Your task to perform on an android device: Open internet settings Image 0: 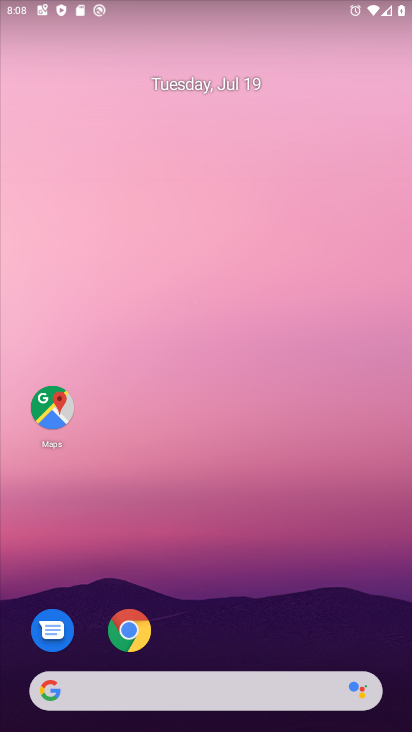
Step 0: drag from (243, 466) to (209, 87)
Your task to perform on an android device: Open internet settings Image 1: 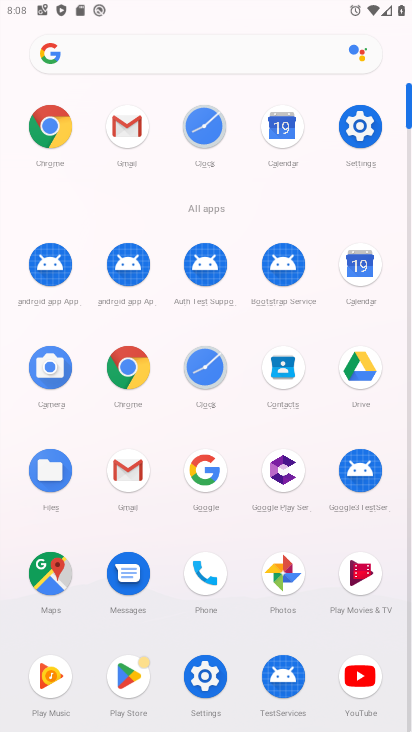
Step 1: click (357, 128)
Your task to perform on an android device: Open internet settings Image 2: 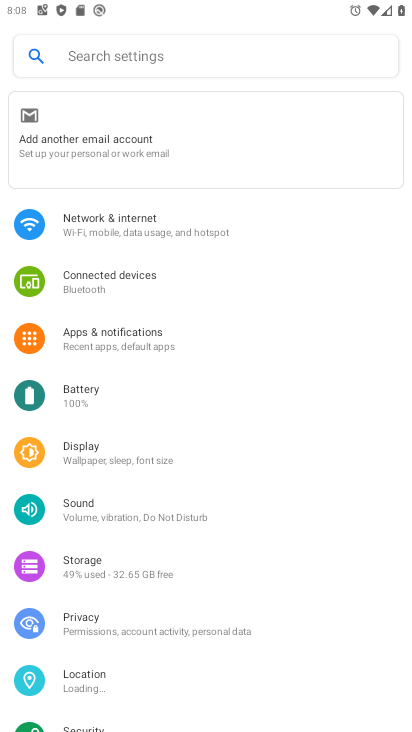
Step 2: click (90, 222)
Your task to perform on an android device: Open internet settings Image 3: 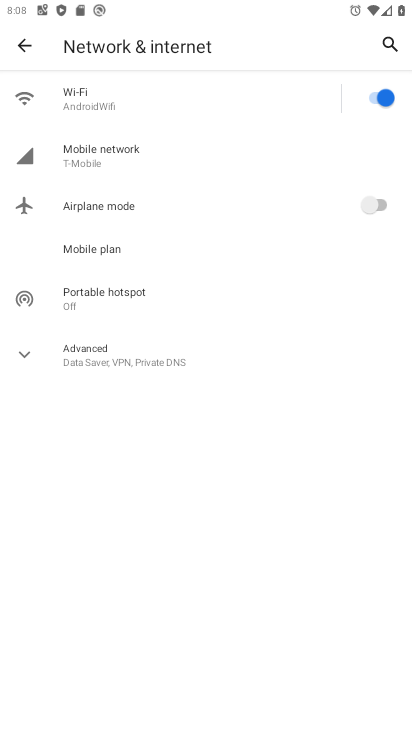
Step 3: task complete